Your task to perform on an android device: show emergency info Image 0: 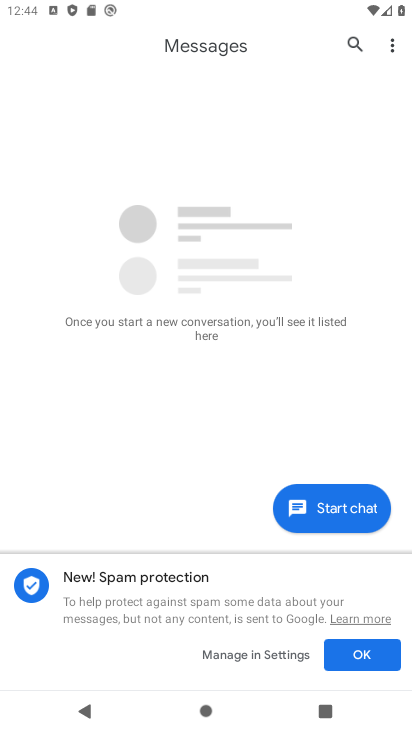
Step 0: press home button
Your task to perform on an android device: show emergency info Image 1: 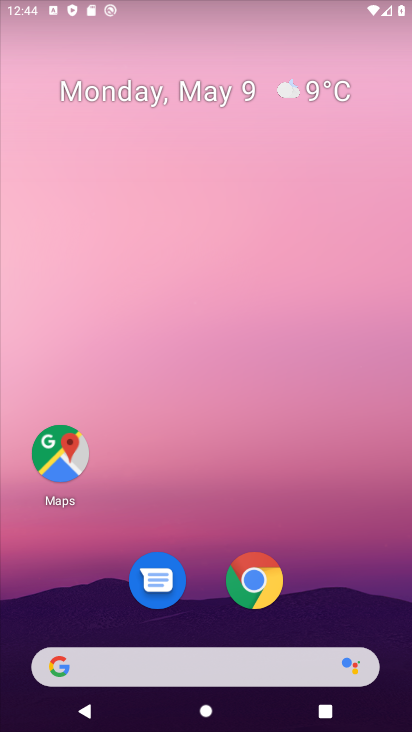
Step 1: drag from (338, 594) to (227, 17)
Your task to perform on an android device: show emergency info Image 2: 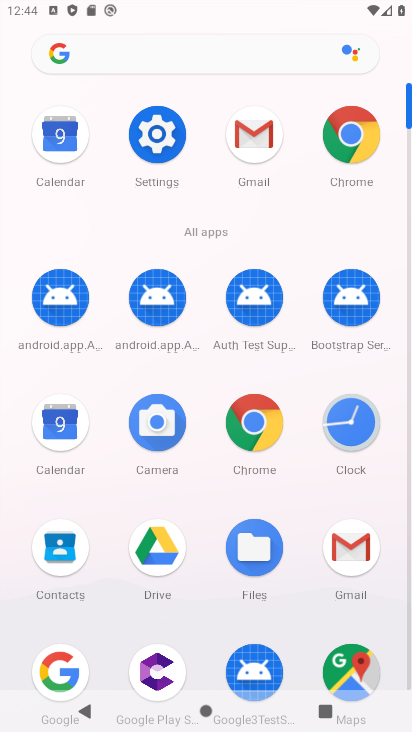
Step 2: click (161, 178)
Your task to perform on an android device: show emergency info Image 3: 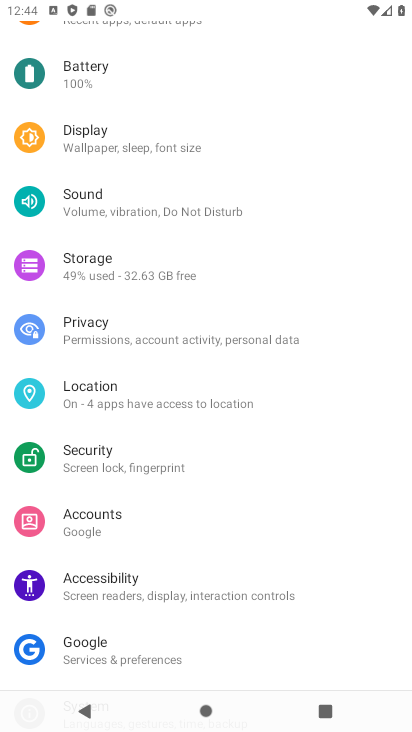
Step 3: drag from (230, 598) to (228, 114)
Your task to perform on an android device: show emergency info Image 4: 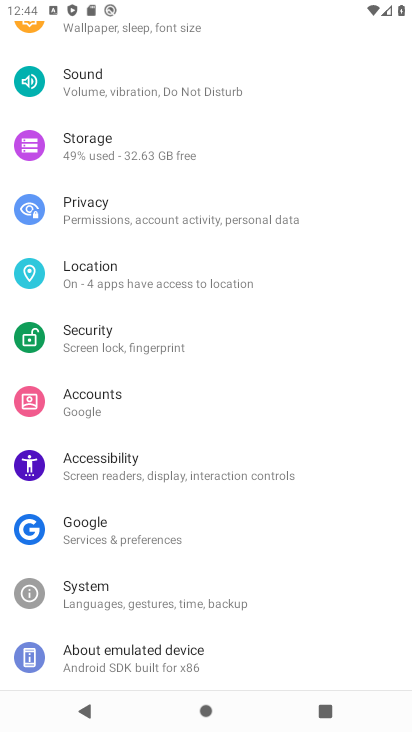
Step 4: click (182, 649)
Your task to perform on an android device: show emergency info Image 5: 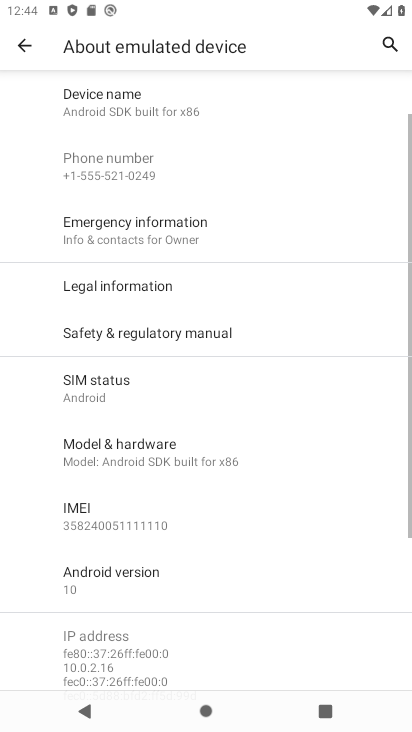
Step 5: click (232, 208)
Your task to perform on an android device: show emergency info Image 6: 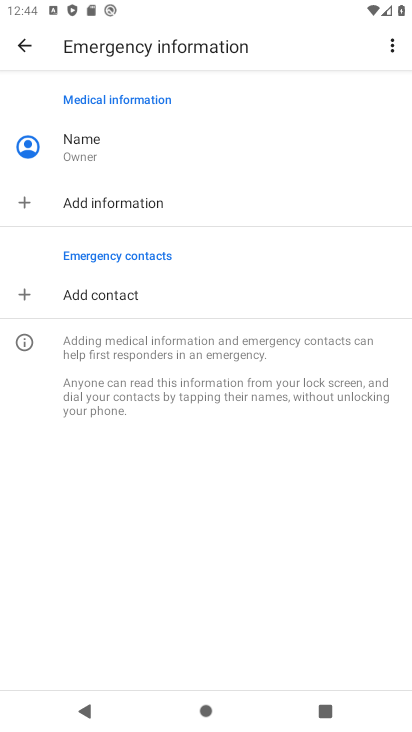
Step 6: task complete